Your task to perform on an android device: Open the calendar app, open the side menu, and click the "Day" option Image 0: 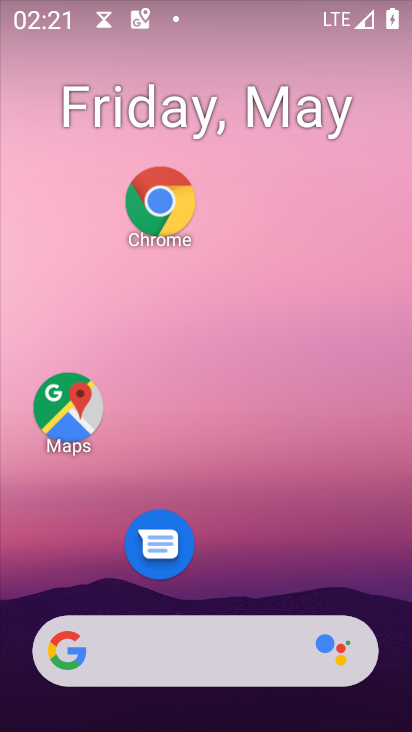
Step 0: drag from (351, 566) to (330, 258)
Your task to perform on an android device: Open the calendar app, open the side menu, and click the "Day" option Image 1: 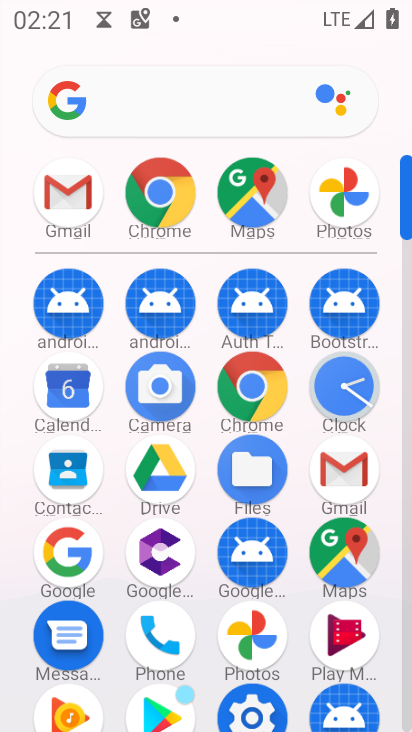
Step 1: click (92, 398)
Your task to perform on an android device: Open the calendar app, open the side menu, and click the "Day" option Image 2: 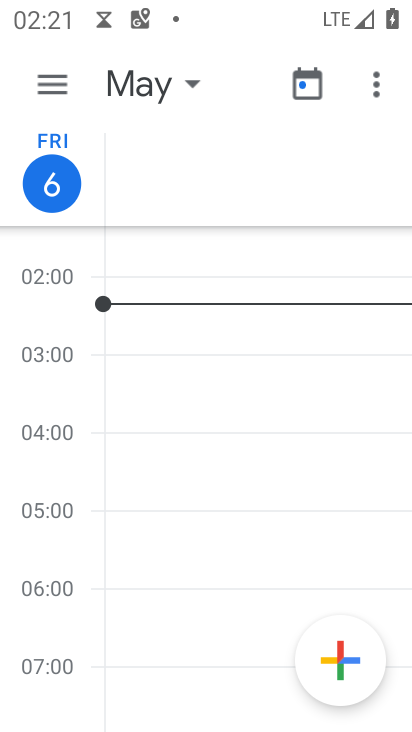
Step 2: click (58, 98)
Your task to perform on an android device: Open the calendar app, open the side menu, and click the "Day" option Image 3: 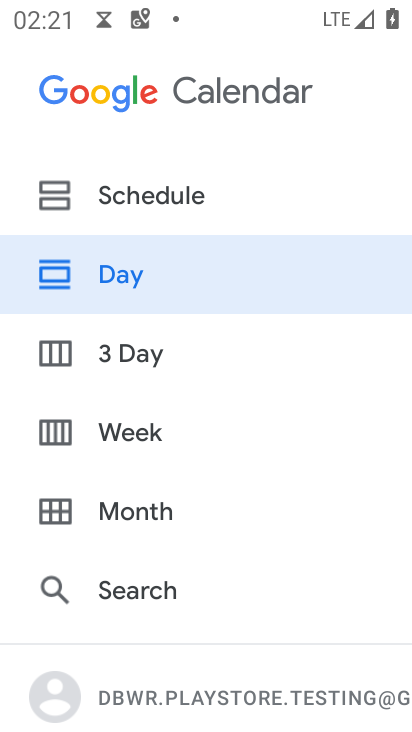
Step 3: click (186, 282)
Your task to perform on an android device: Open the calendar app, open the side menu, and click the "Day" option Image 4: 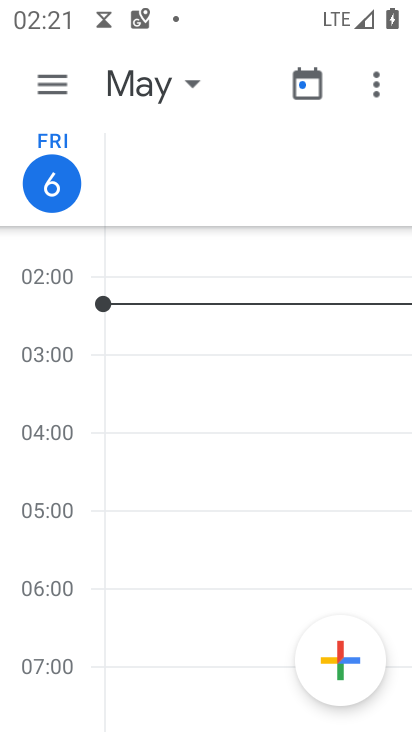
Step 4: task complete